Your task to perform on an android device: Open Chrome and go to the settings page Image 0: 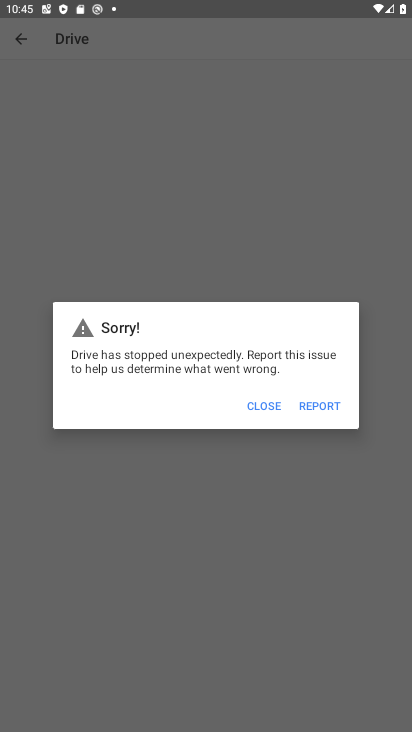
Step 0: click (193, 599)
Your task to perform on an android device: Open Chrome and go to the settings page Image 1: 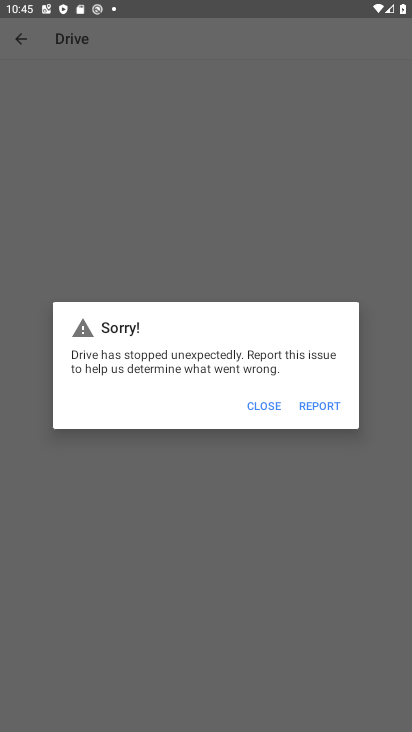
Step 1: click (269, 405)
Your task to perform on an android device: Open Chrome and go to the settings page Image 2: 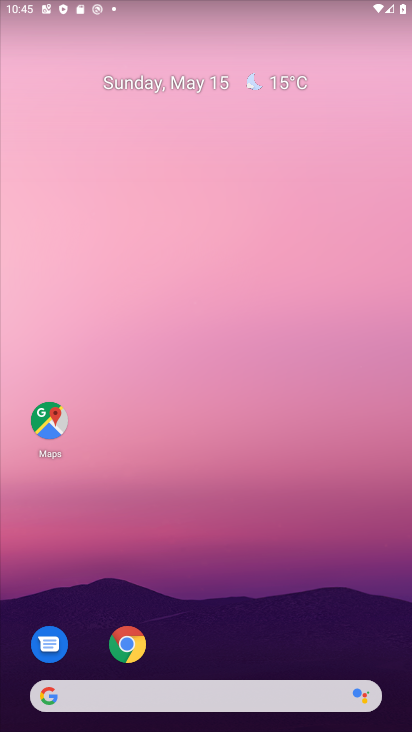
Step 2: click (119, 630)
Your task to perform on an android device: Open Chrome and go to the settings page Image 3: 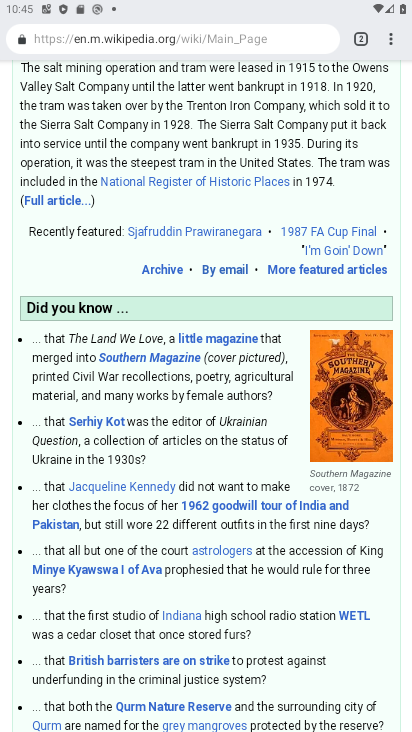
Step 3: click (398, 24)
Your task to perform on an android device: Open Chrome and go to the settings page Image 4: 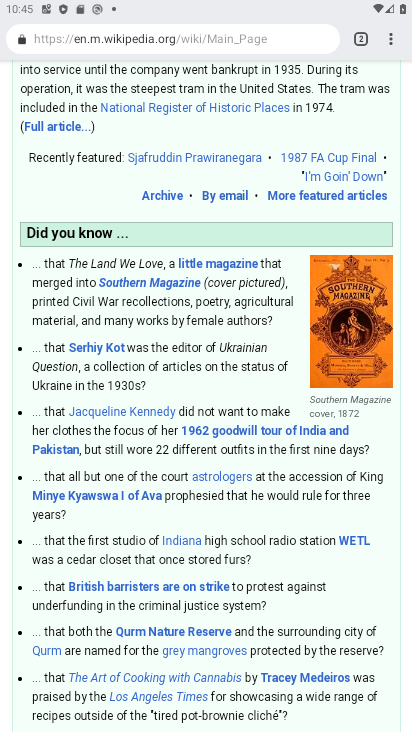
Step 4: click (390, 39)
Your task to perform on an android device: Open Chrome and go to the settings page Image 5: 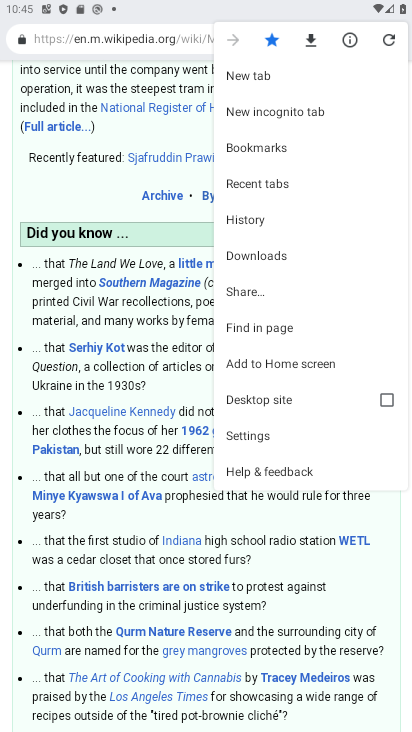
Step 5: click (241, 422)
Your task to perform on an android device: Open Chrome and go to the settings page Image 6: 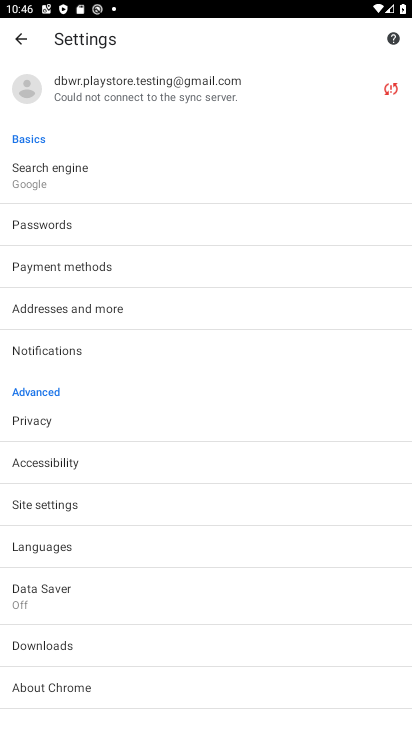
Step 6: task complete